Your task to perform on an android device: What's the weather going to be this weekend? Image 0: 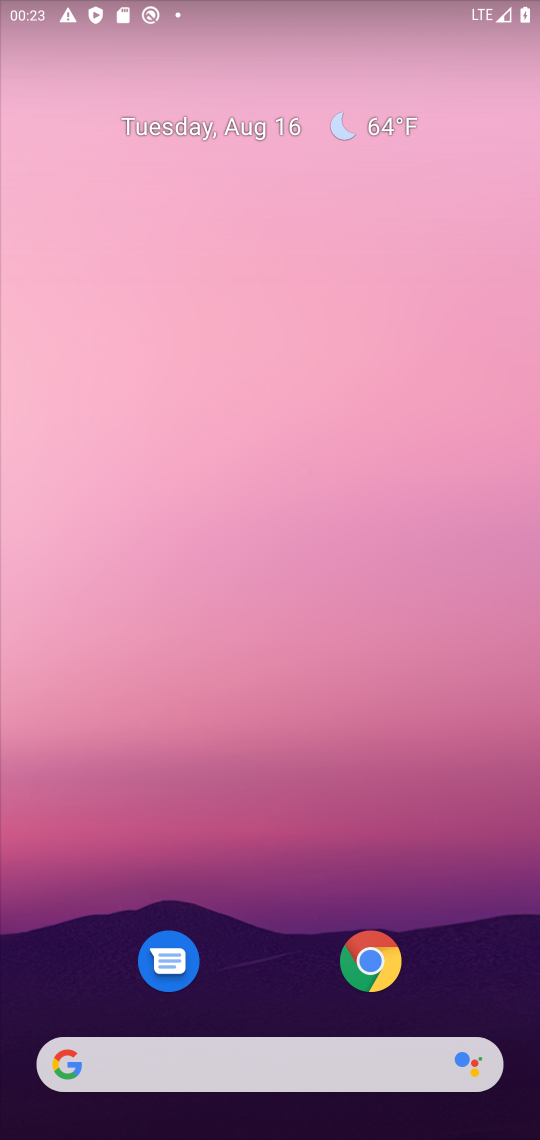
Step 0: press home button
Your task to perform on an android device: What's the weather going to be this weekend? Image 1: 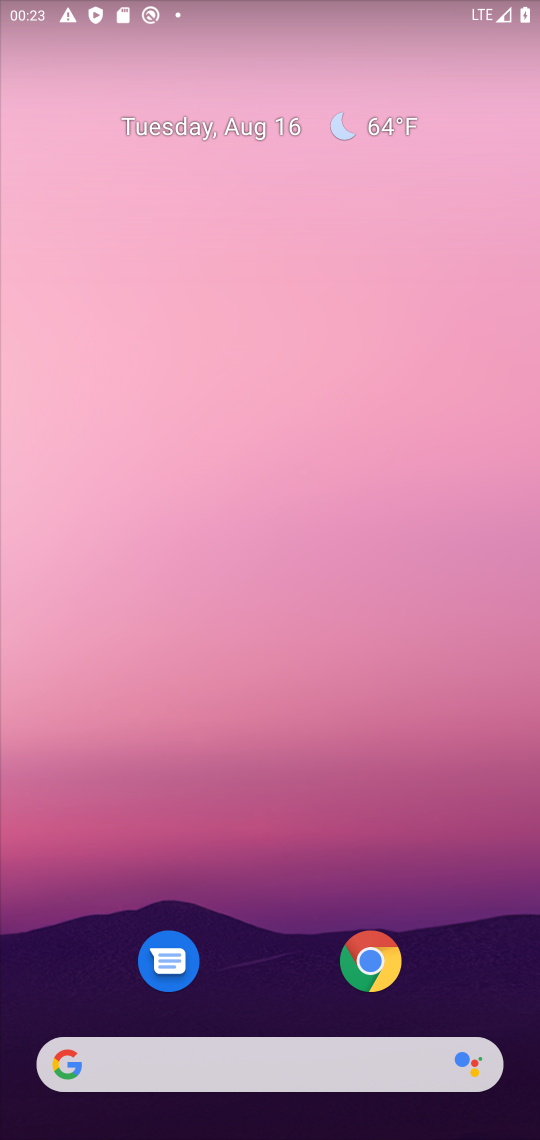
Step 1: click (377, 980)
Your task to perform on an android device: What's the weather going to be this weekend? Image 2: 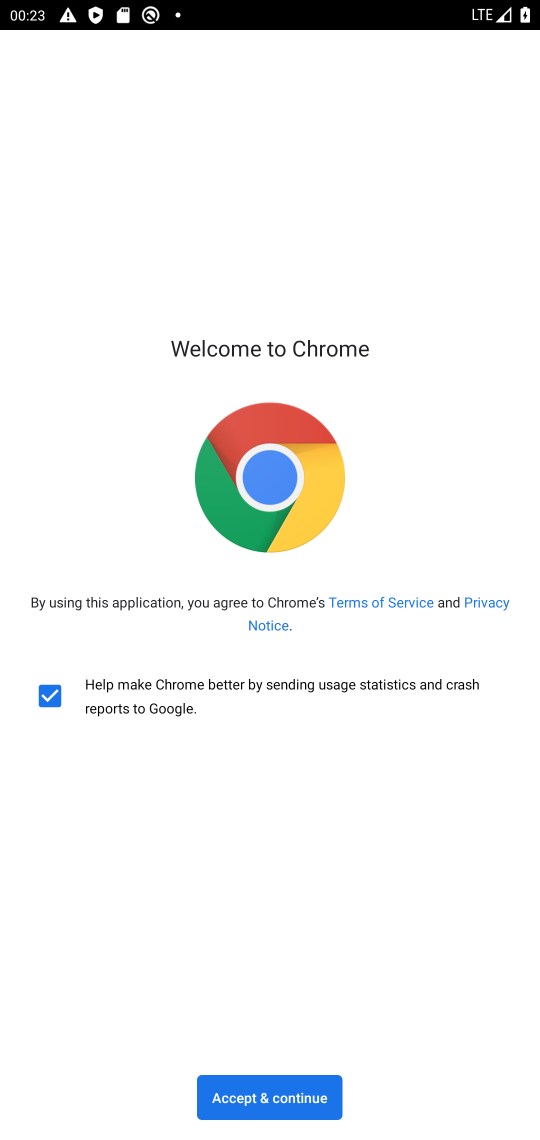
Step 2: click (241, 1088)
Your task to perform on an android device: What's the weather going to be this weekend? Image 3: 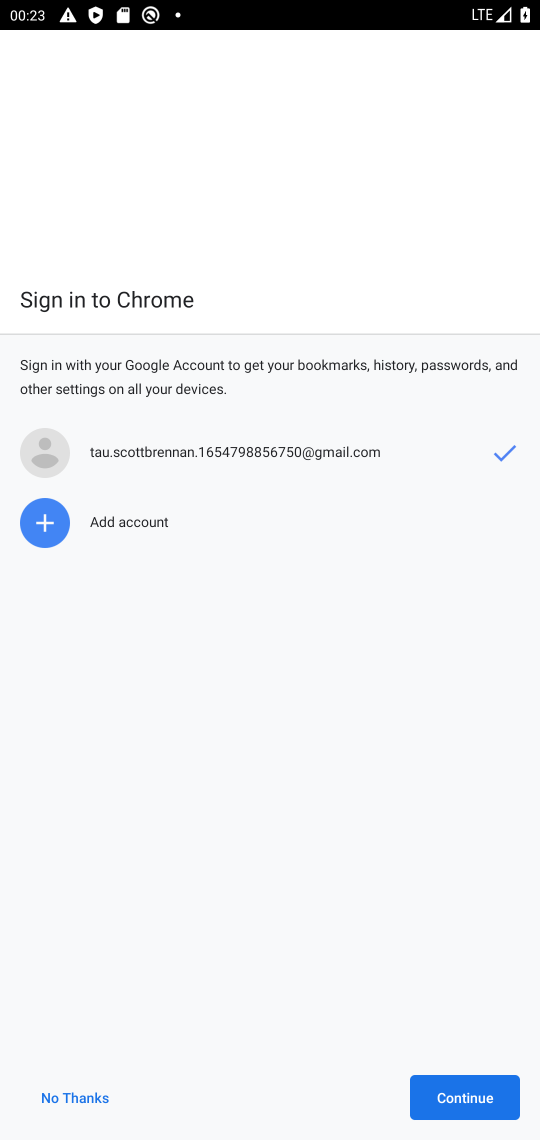
Step 3: click (467, 1101)
Your task to perform on an android device: What's the weather going to be this weekend? Image 4: 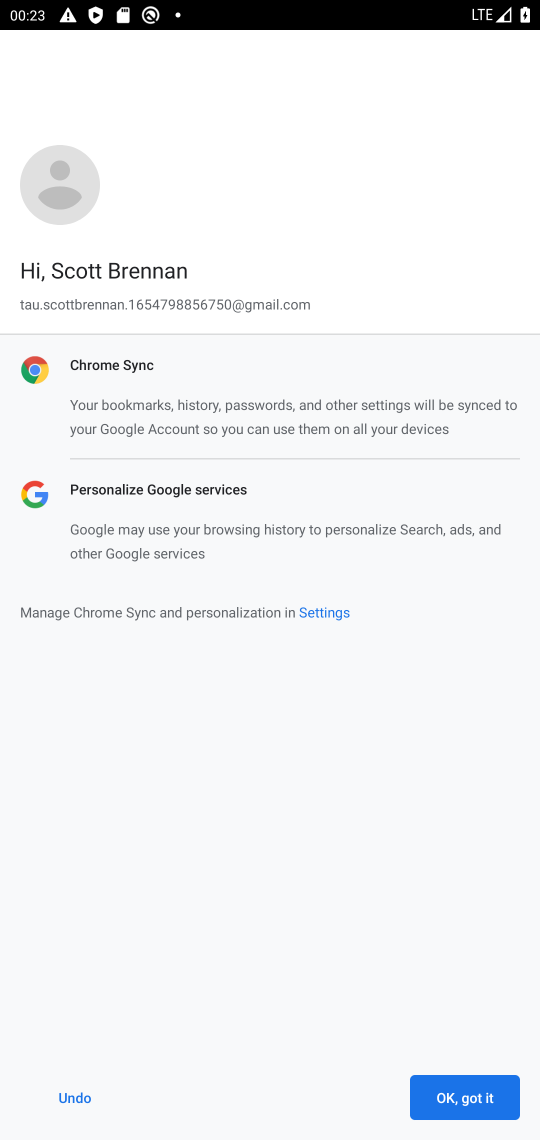
Step 4: click (461, 1100)
Your task to perform on an android device: What's the weather going to be this weekend? Image 5: 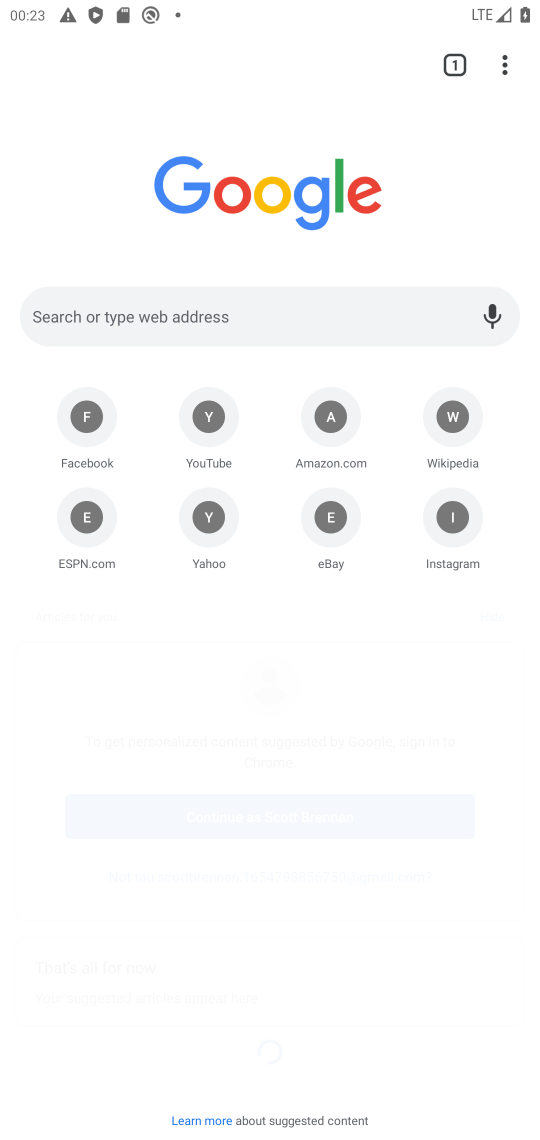
Step 5: click (180, 77)
Your task to perform on an android device: What's the weather going to be this weekend? Image 6: 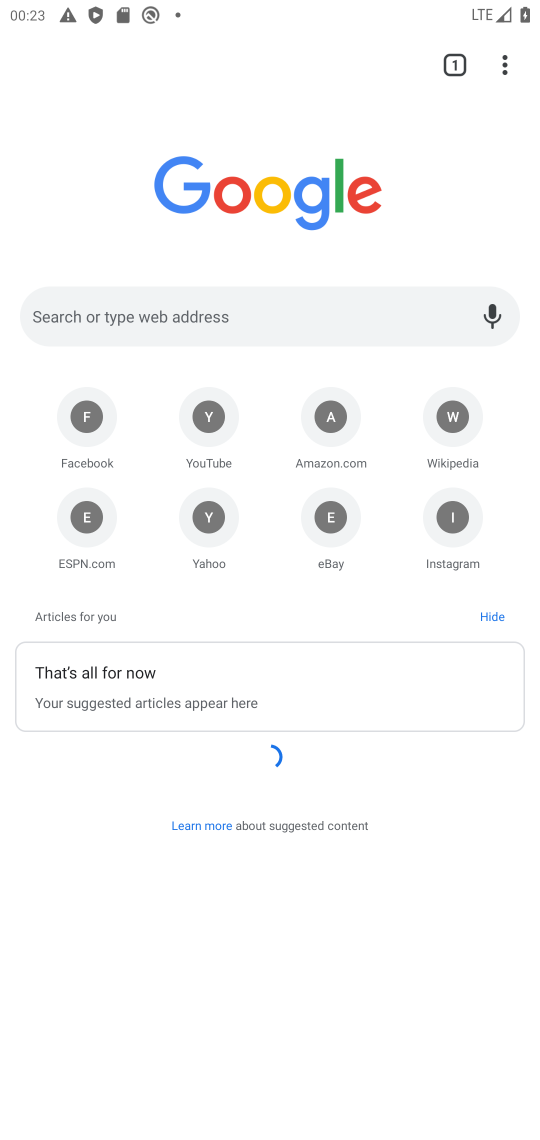
Step 6: click (299, 320)
Your task to perform on an android device: What's the weather going to be this weekend? Image 7: 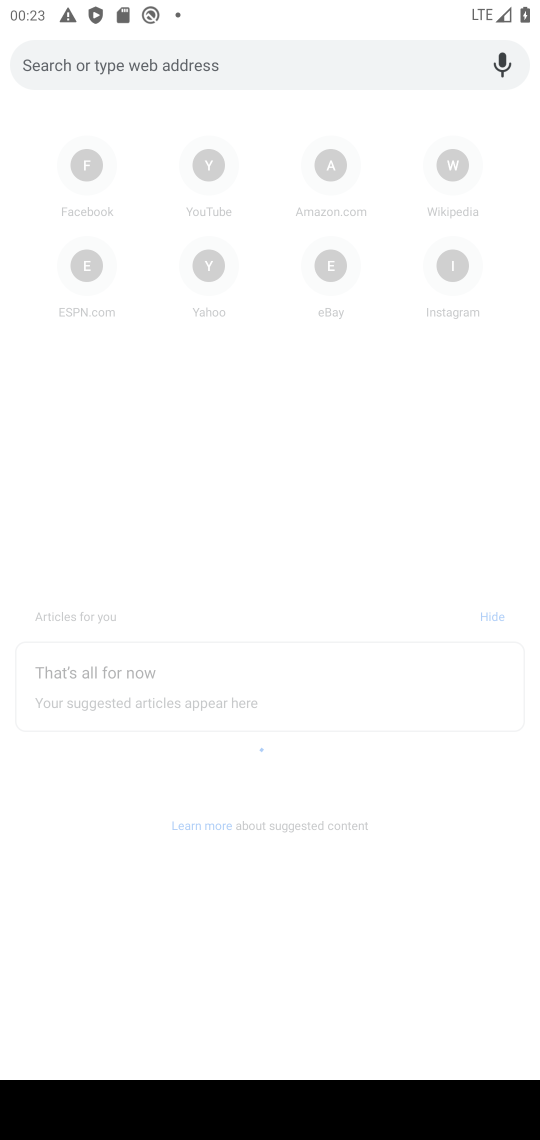
Step 7: type "What's the weather going to be this weekend?"
Your task to perform on an android device: What's the weather going to be this weekend? Image 8: 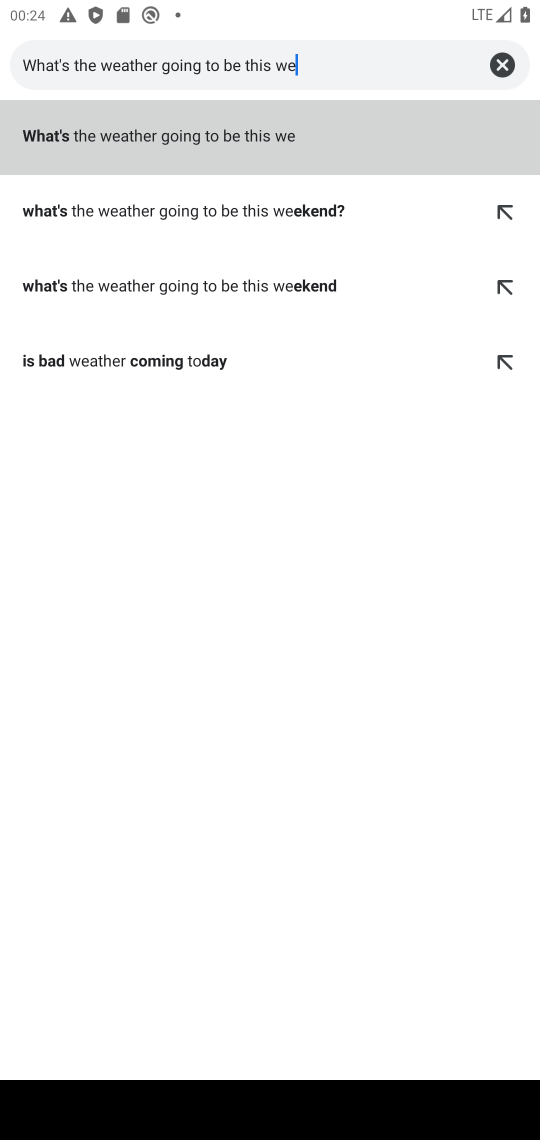
Step 8: click (221, 213)
Your task to perform on an android device: What's the weather going to be this weekend? Image 9: 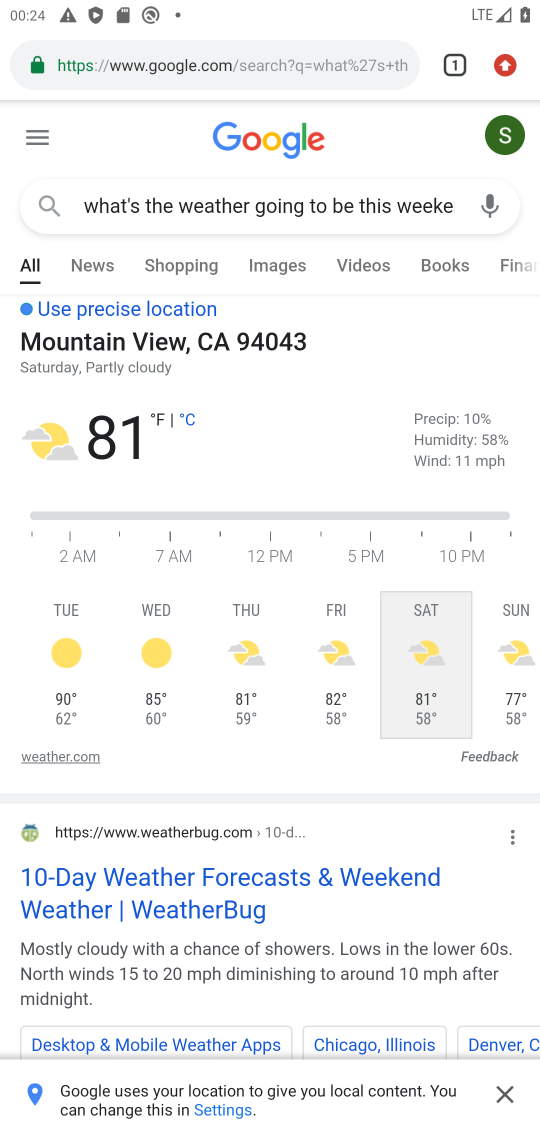
Step 9: task complete